Your task to perform on an android device: toggle priority inbox in the gmail app Image 0: 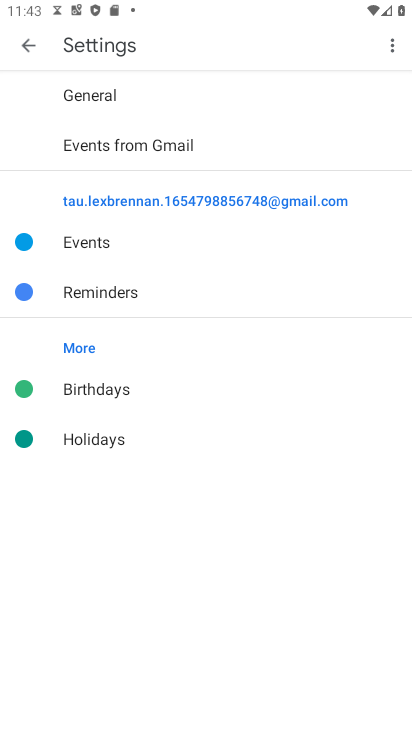
Step 0: press home button
Your task to perform on an android device: toggle priority inbox in the gmail app Image 1: 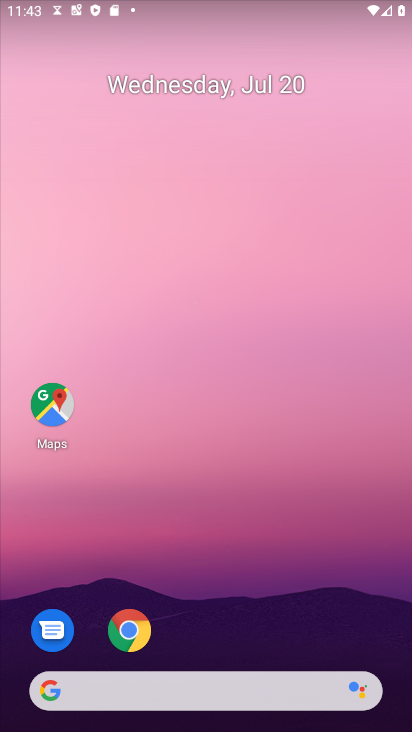
Step 1: drag from (23, 727) to (240, 190)
Your task to perform on an android device: toggle priority inbox in the gmail app Image 2: 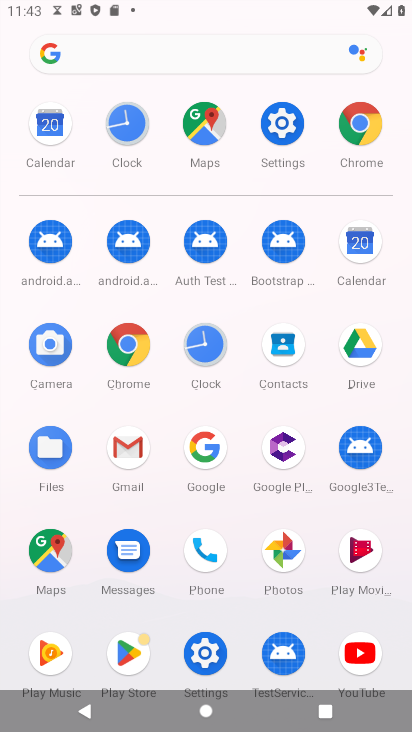
Step 2: click (124, 454)
Your task to perform on an android device: toggle priority inbox in the gmail app Image 3: 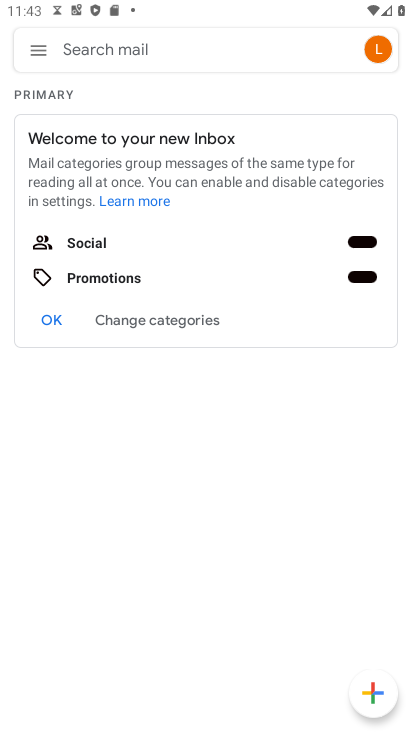
Step 3: click (40, 50)
Your task to perform on an android device: toggle priority inbox in the gmail app Image 4: 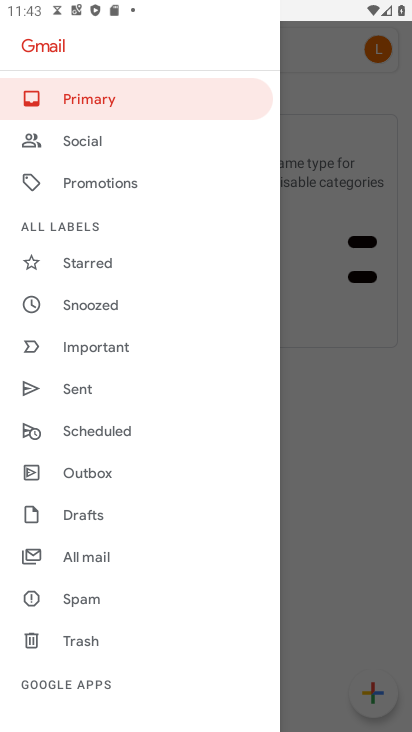
Step 4: drag from (153, 703) to (214, 364)
Your task to perform on an android device: toggle priority inbox in the gmail app Image 5: 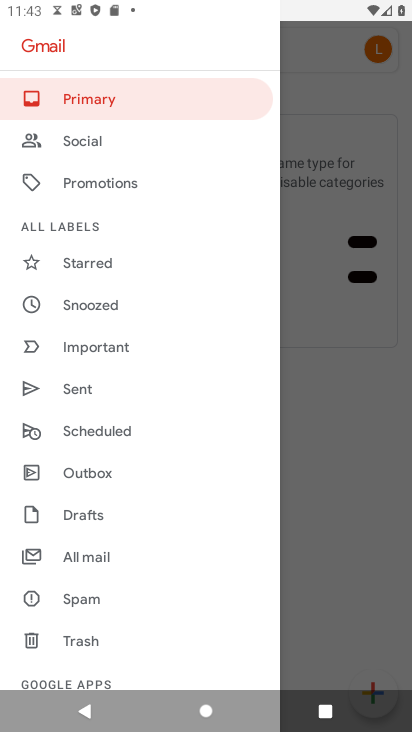
Step 5: drag from (174, 570) to (232, 257)
Your task to perform on an android device: toggle priority inbox in the gmail app Image 6: 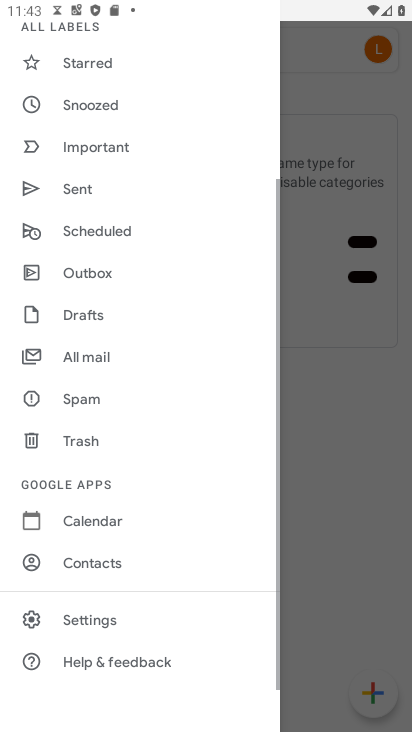
Step 6: click (82, 625)
Your task to perform on an android device: toggle priority inbox in the gmail app Image 7: 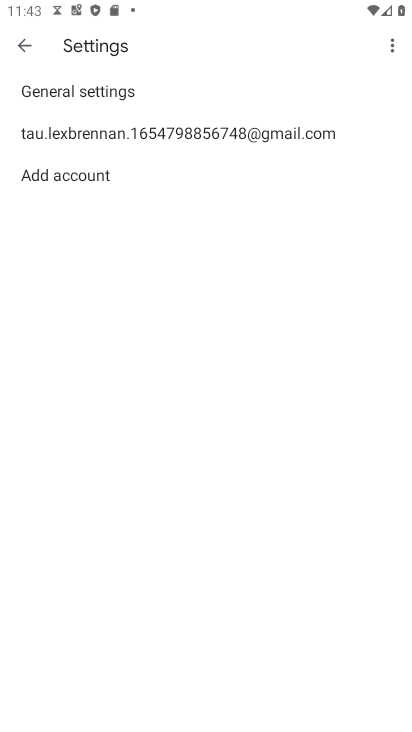
Step 7: click (114, 134)
Your task to perform on an android device: toggle priority inbox in the gmail app Image 8: 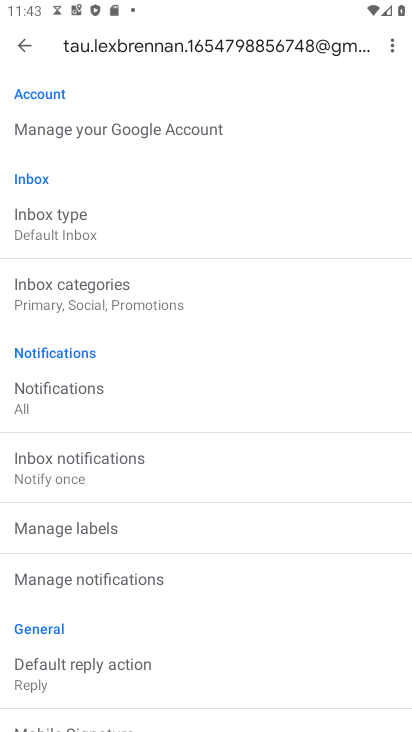
Step 8: click (105, 210)
Your task to perform on an android device: toggle priority inbox in the gmail app Image 9: 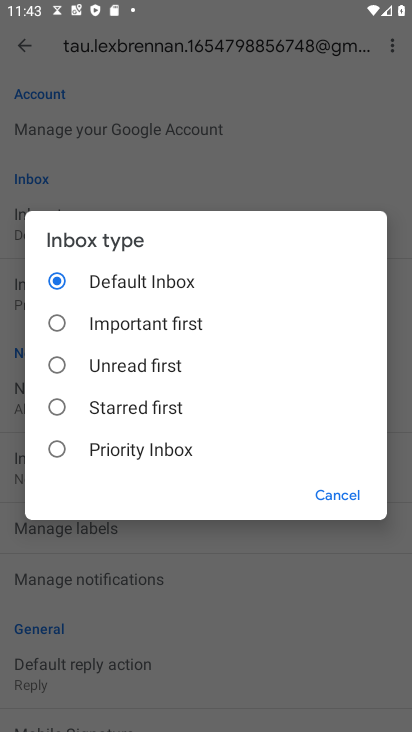
Step 9: click (77, 453)
Your task to perform on an android device: toggle priority inbox in the gmail app Image 10: 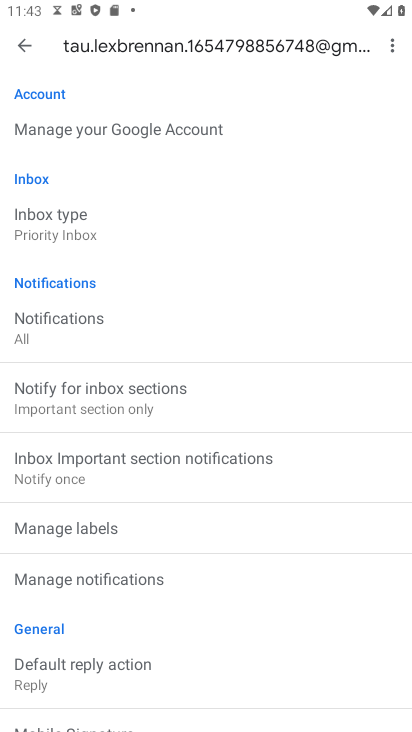
Step 10: task complete